Your task to perform on an android device: move an email to a new category in the gmail app Image 0: 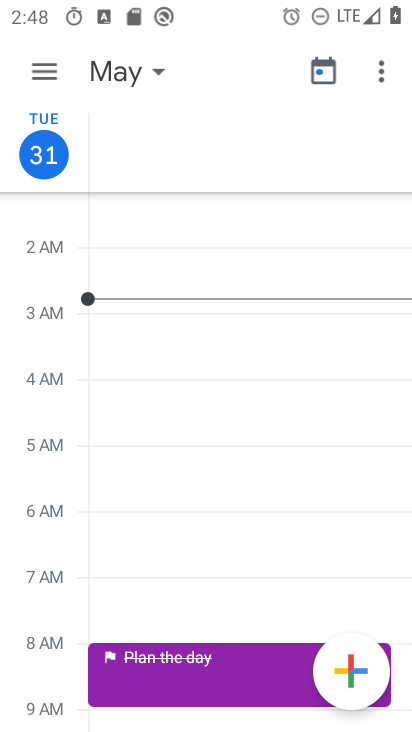
Step 0: press home button
Your task to perform on an android device: move an email to a new category in the gmail app Image 1: 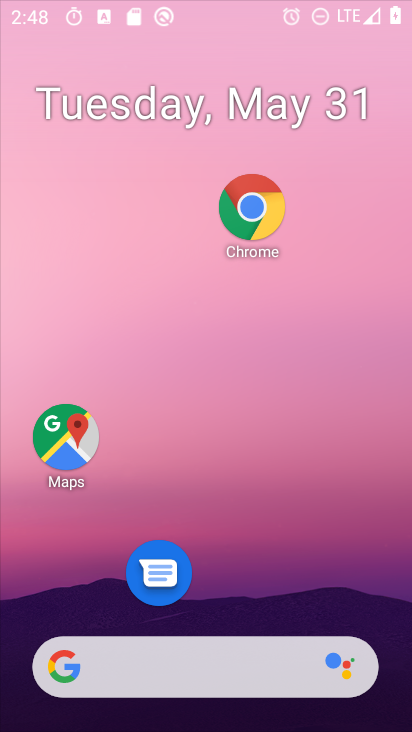
Step 1: drag from (251, 618) to (290, 154)
Your task to perform on an android device: move an email to a new category in the gmail app Image 2: 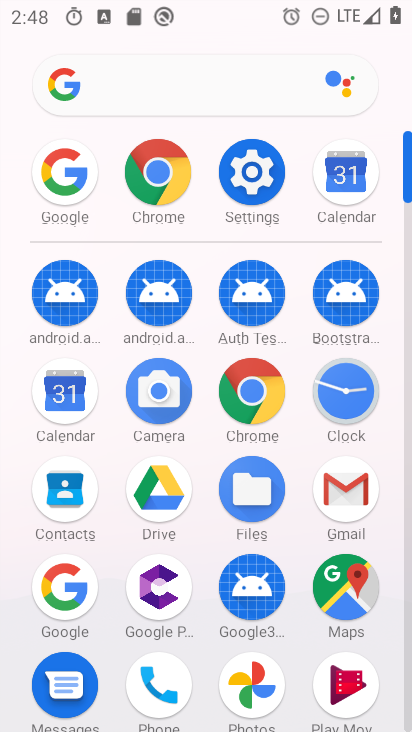
Step 2: click (338, 496)
Your task to perform on an android device: move an email to a new category in the gmail app Image 3: 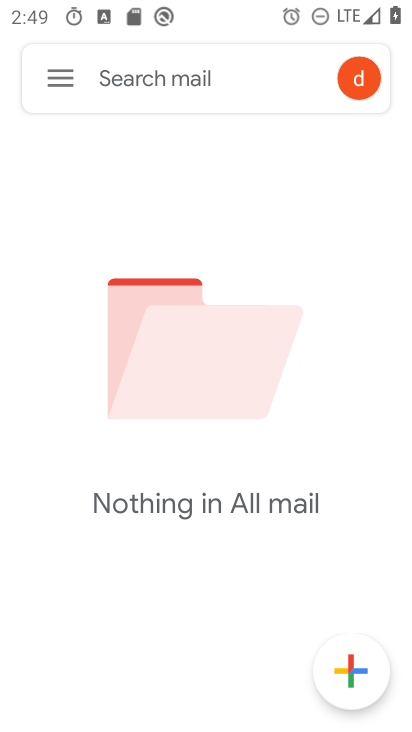
Step 3: task complete